Your task to perform on an android device: turn notification dots on Image 0: 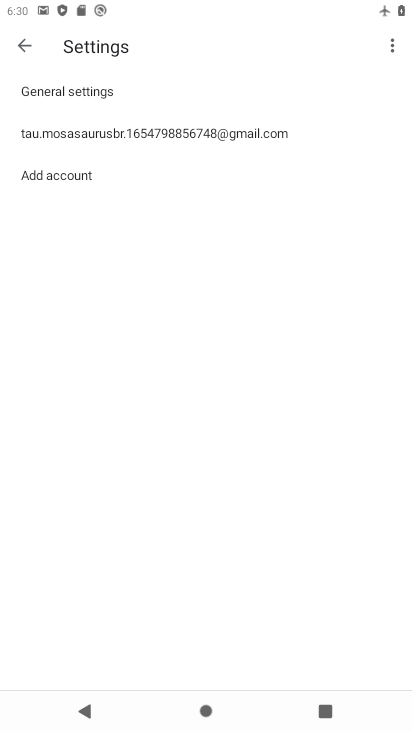
Step 0: press home button
Your task to perform on an android device: turn notification dots on Image 1: 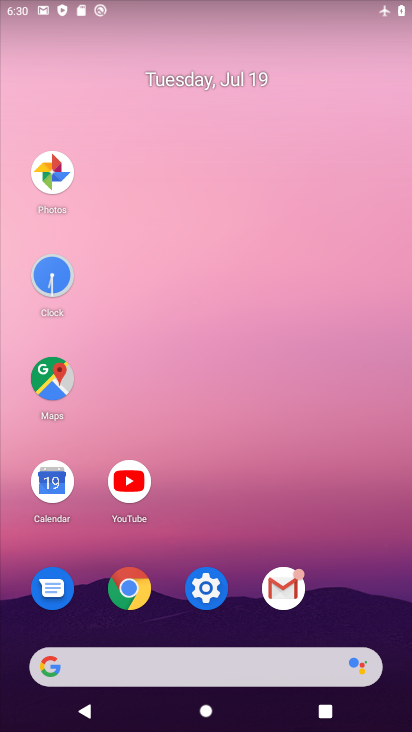
Step 1: click (209, 589)
Your task to perform on an android device: turn notification dots on Image 2: 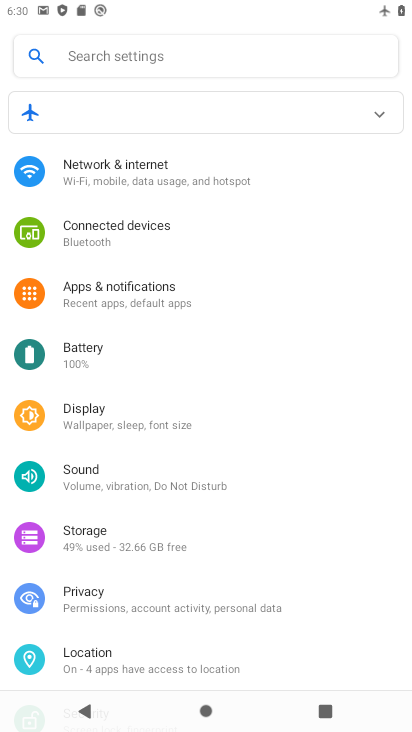
Step 2: click (121, 285)
Your task to perform on an android device: turn notification dots on Image 3: 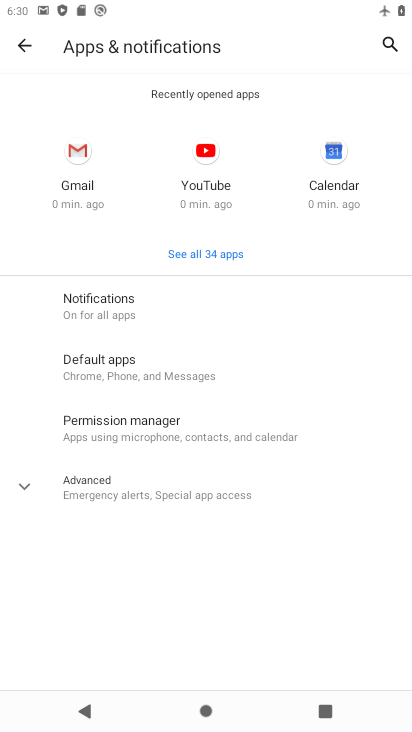
Step 3: click (82, 292)
Your task to perform on an android device: turn notification dots on Image 4: 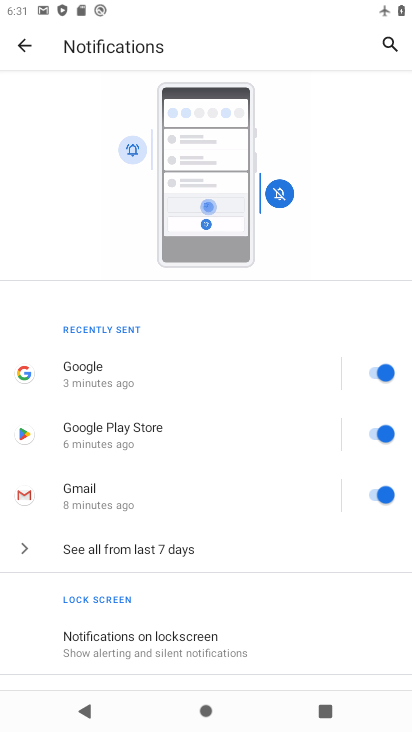
Step 4: drag from (321, 614) to (275, 319)
Your task to perform on an android device: turn notification dots on Image 5: 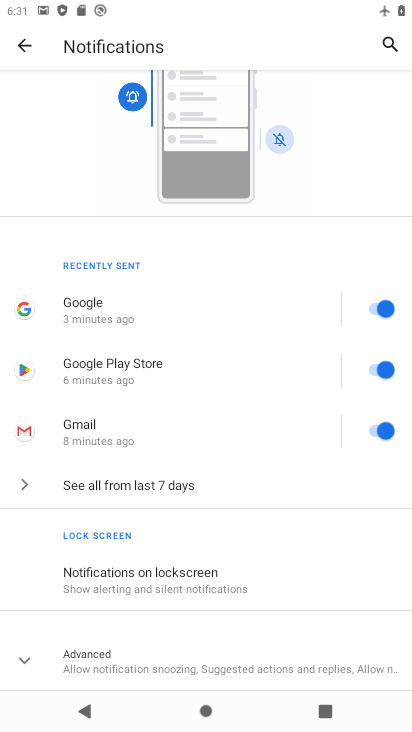
Step 5: click (22, 659)
Your task to perform on an android device: turn notification dots on Image 6: 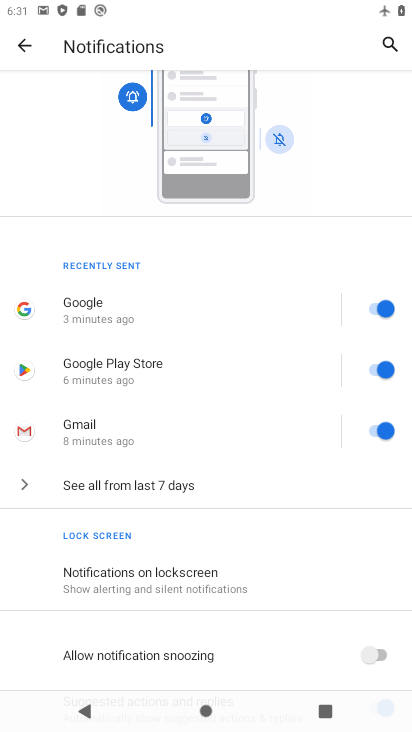
Step 6: task complete